Your task to perform on an android device: Open Youtube and go to the subscriptions tab Image 0: 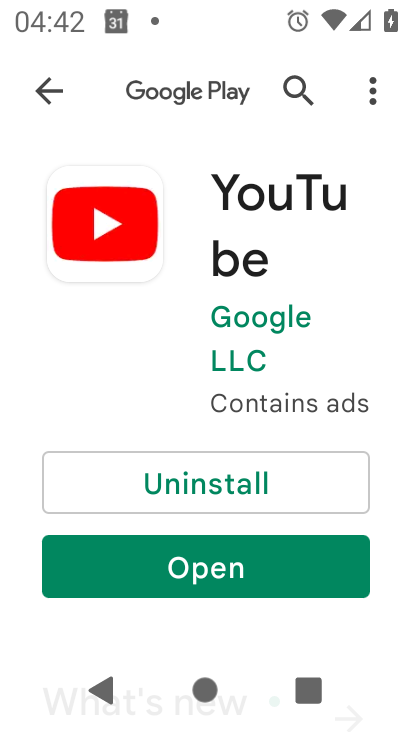
Step 0: press home button
Your task to perform on an android device: Open Youtube and go to the subscriptions tab Image 1: 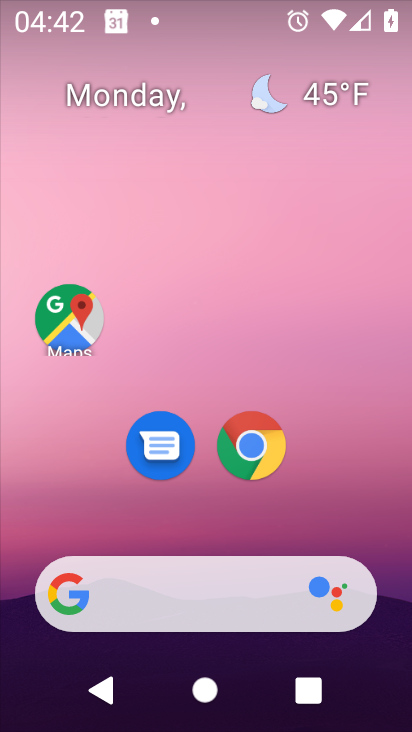
Step 1: drag from (314, 526) to (307, 72)
Your task to perform on an android device: Open Youtube and go to the subscriptions tab Image 2: 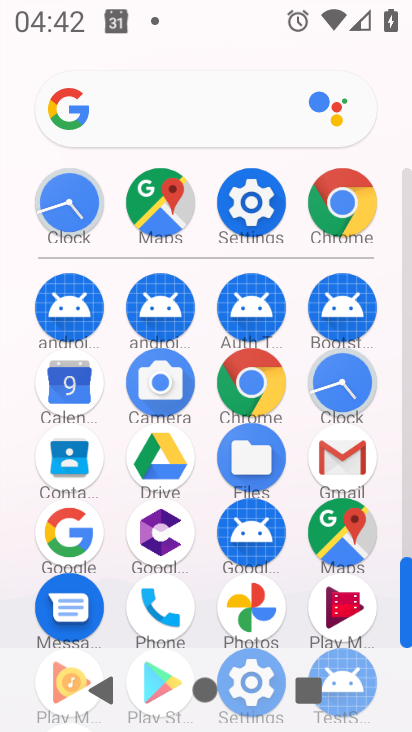
Step 2: drag from (264, 504) to (262, 133)
Your task to perform on an android device: Open Youtube and go to the subscriptions tab Image 3: 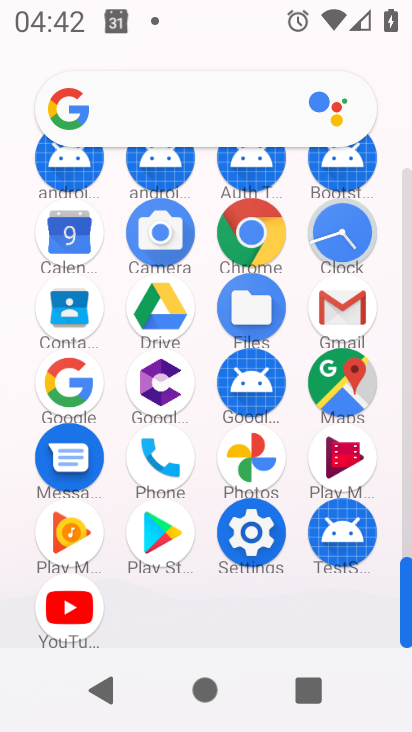
Step 3: click (48, 616)
Your task to perform on an android device: Open Youtube and go to the subscriptions tab Image 4: 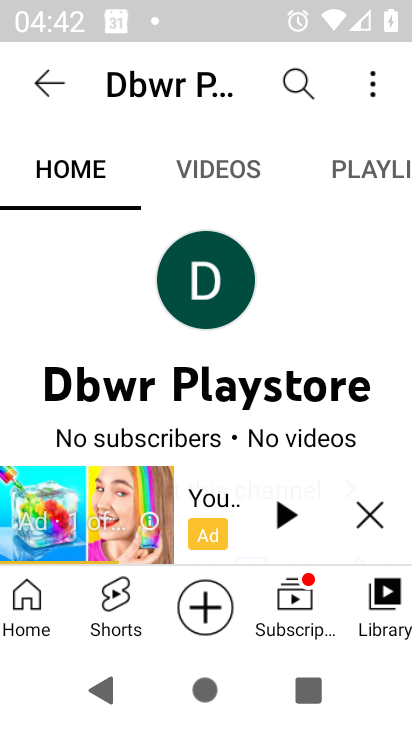
Step 4: click (282, 618)
Your task to perform on an android device: Open Youtube and go to the subscriptions tab Image 5: 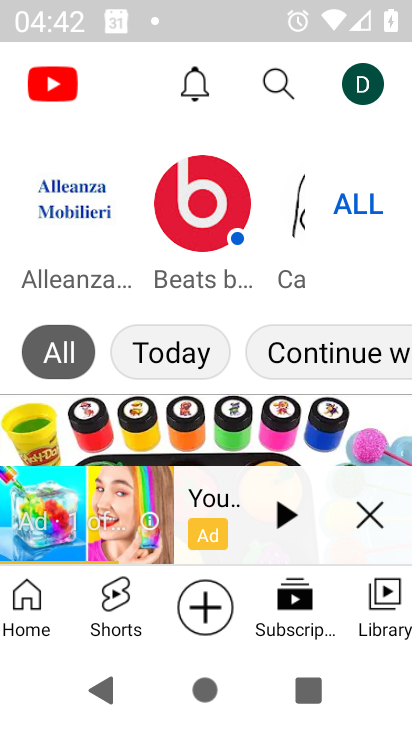
Step 5: task complete